Your task to perform on an android device: turn off javascript in the chrome app Image 0: 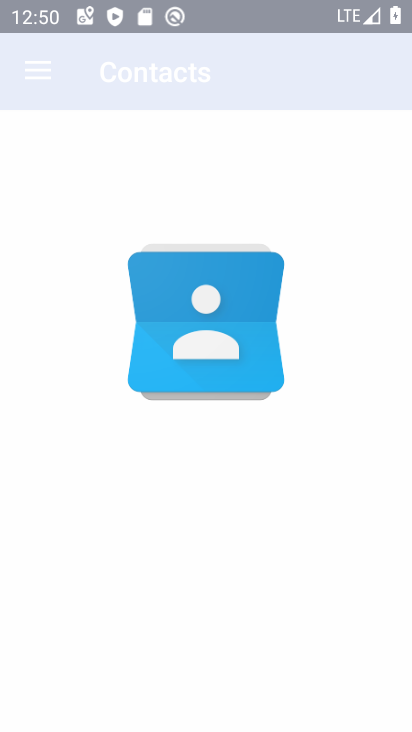
Step 0: drag from (209, 517) to (173, 43)
Your task to perform on an android device: turn off javascript in the chrome app Image 1: 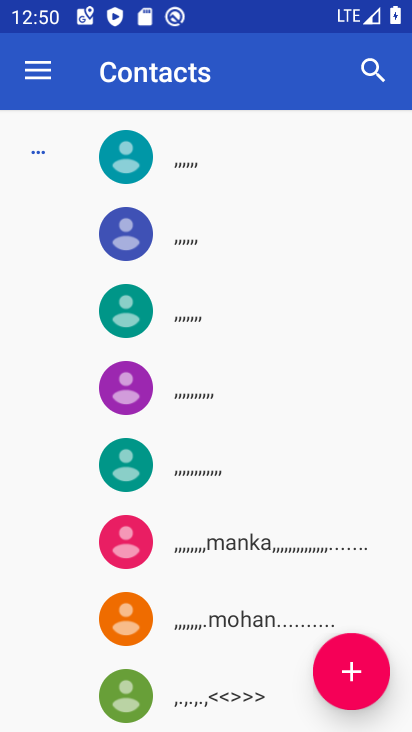
Step 1: press home button
Your task to perform on an android device: turn off javascript in the chrome app Image 2: 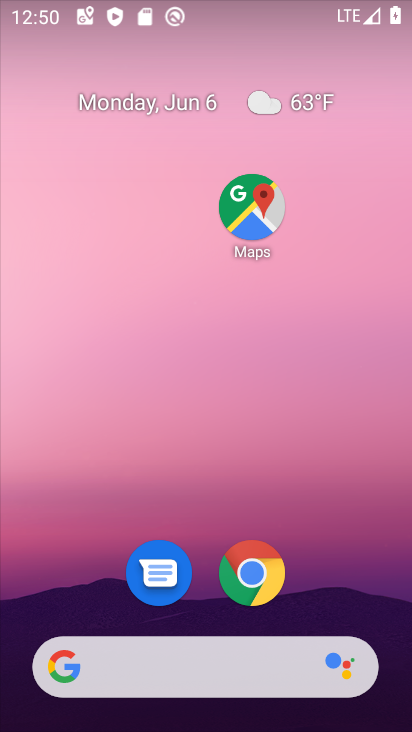
Step 2: drag from (189, 422) to (120, 2)
Your task to perform on an android device: turn off javascript in the chrome app Image 3: 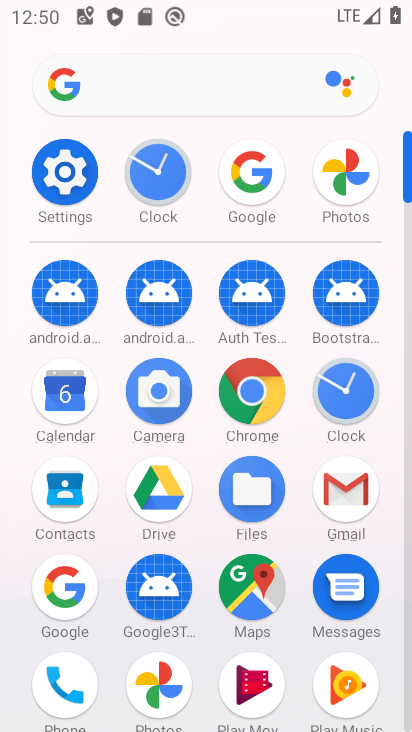
Step 3: drag from (210, 263) to (189, 18)
Your task to perform on an android device: turn off javascript in the chrome app Image 4: 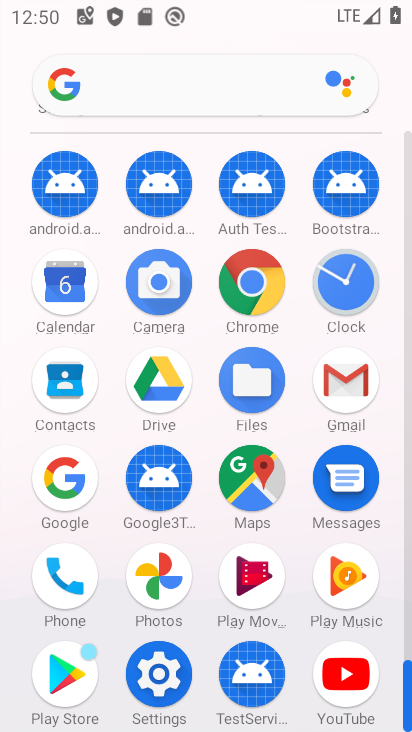
Step 4: click (252, 308)
Your task to perform on an android device: turn off javascript in the chrome app Image 5: 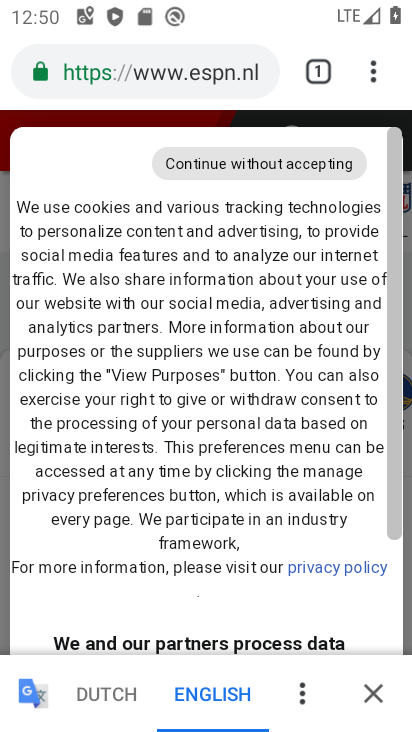
Step 5: click (377, 71)
Your task to perform on an android device: turn off javascript in the chrome app Image 6: 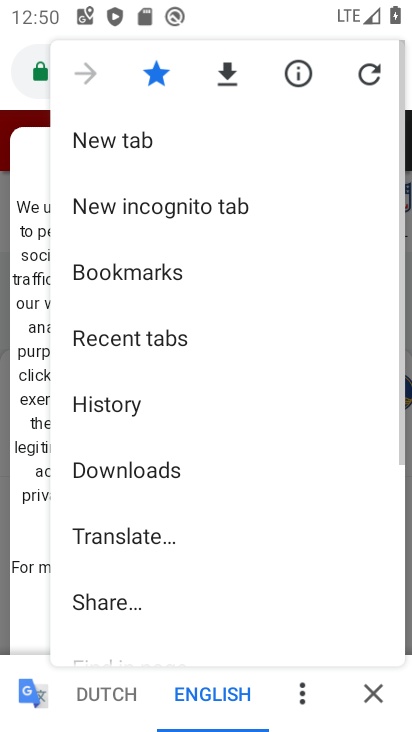
Step 6: drag from (207, 551) to (208, 227)
Your task to perform on an android device: turn off javascript in the chrome app Image 7: 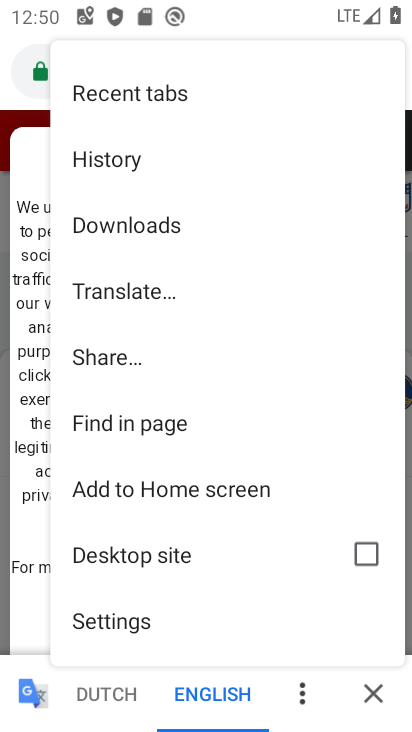
Step 7: click (157, 620)
Your task to perform on an android device: turn off javascript in the chrome app Image 8: 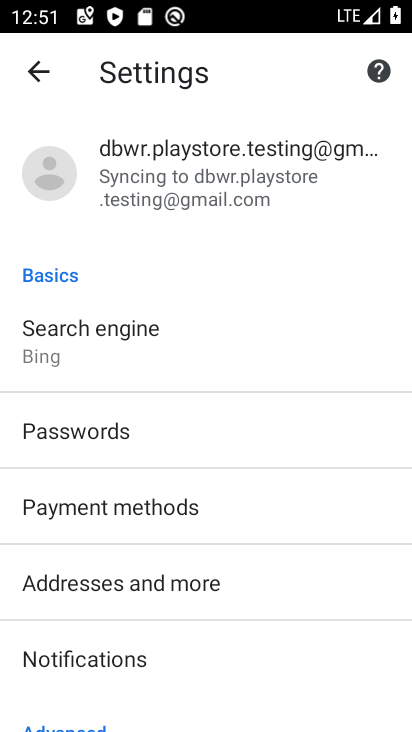
Step 8: drag from (183, 655) to (239, 176)
Your task to perform on an android device: turn off javascript in the chrome app Image 9: 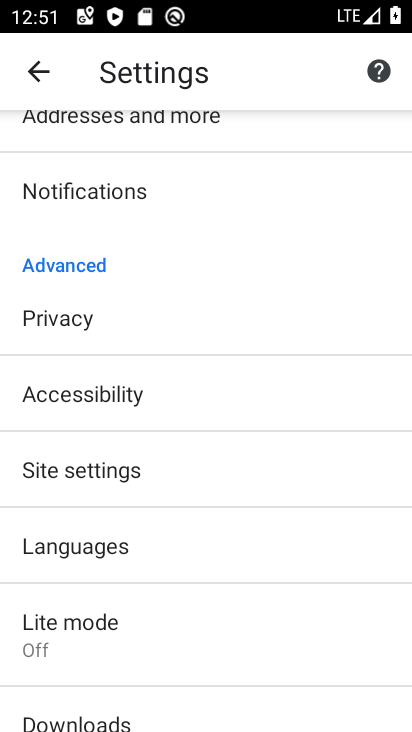
Step 9: click (117, 480)
Your task to perform on an android device: turn off javascript in the chrome app Image 10: 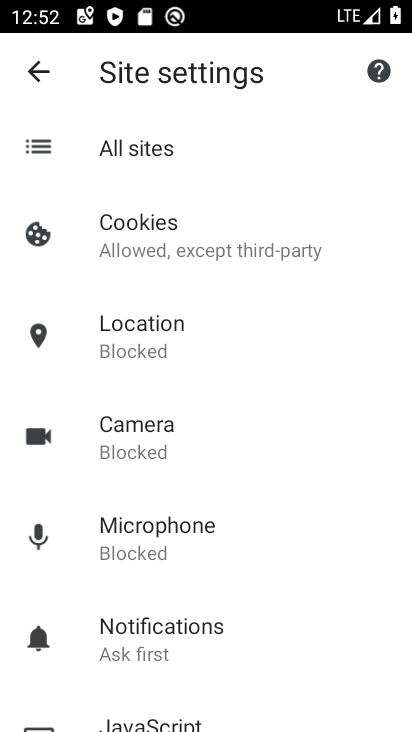
Step 10: click (131, 584)
Your task to perform on an android device: turn off javascript in the chrome app Image 11: 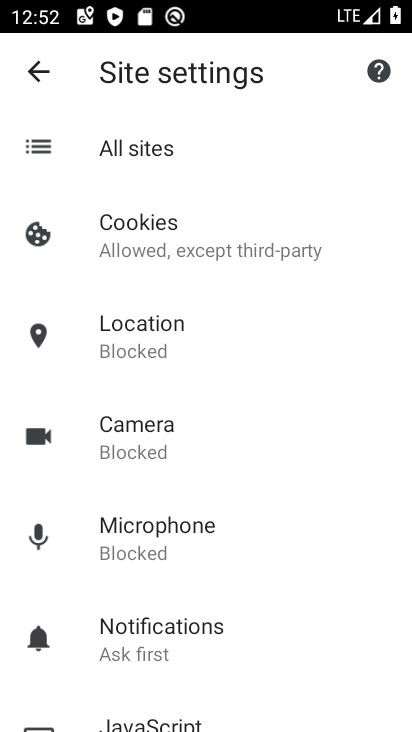
Step 11: drag from (198, 629) to (236, 143)
Your task to perform on an android device: turn off javascript in the chrome app Image 12: 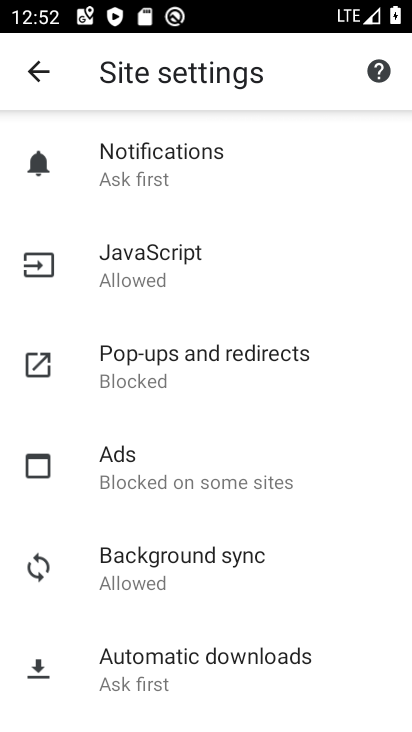
Step 12: click (200, 282)
Your task to perform on an android device: turn off javascript in the chrome app Image 13: 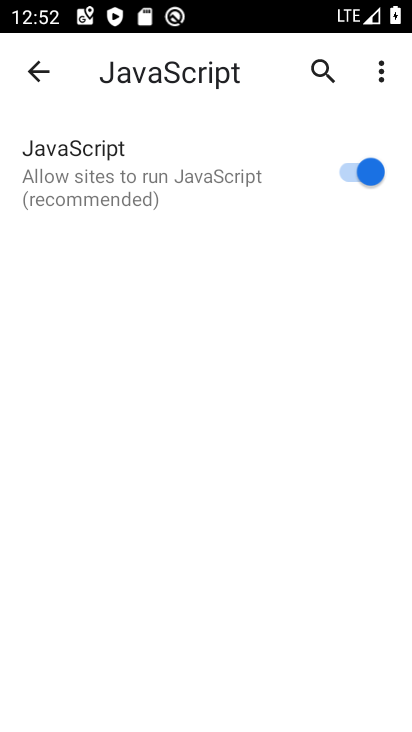
Step 13: click (357, 184)
Your task to perform on an android device: turn off javascript in the chrome app Image 14: 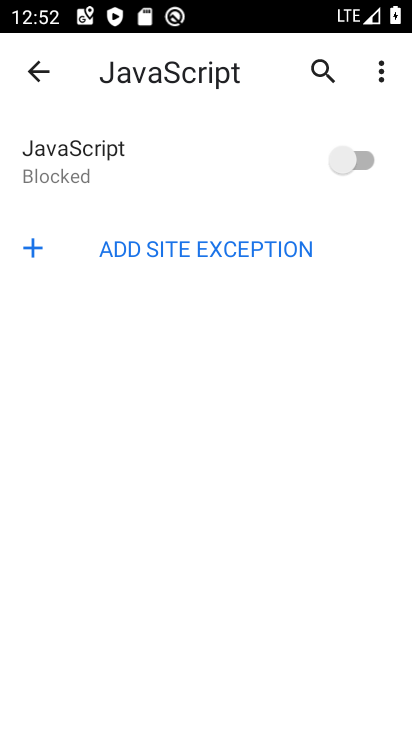
Step 14: task complete